Your task to perform on an android device: turn smart compose on in the gmail app Image 0: 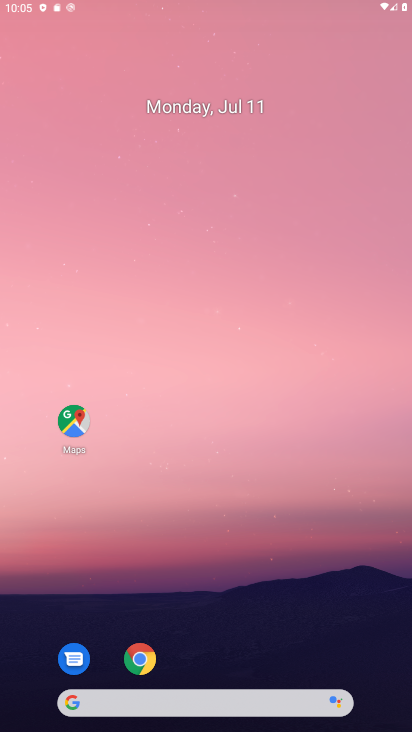
Step 0: drag from (206, 597) to (298, 203)
Your task to perform on an android device: turn smart compose on in the gmail app Image 1: 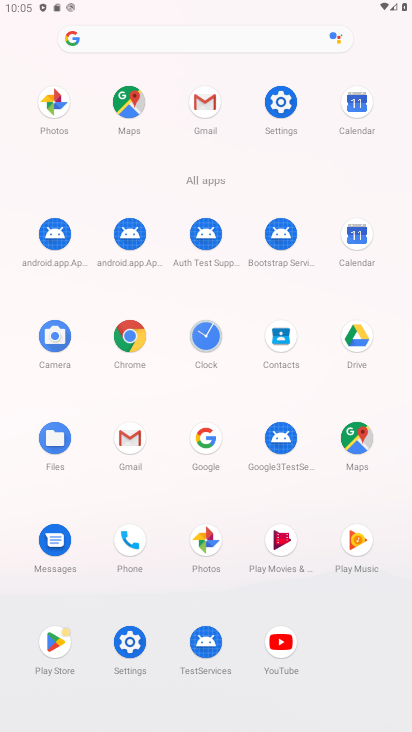
Step 1: click (127, 442)
Your task to perform on an android device: turn smart compose on in the gmail app Image 2: 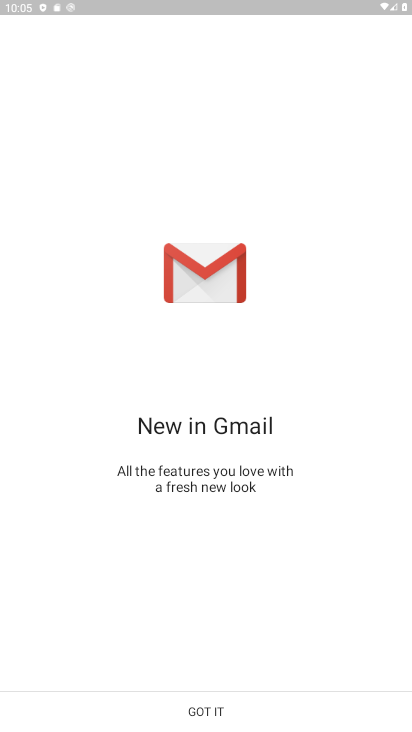
Step 2: click (222, 721)
Your task to perform on an android device: turn smart compose on in the gmail app Image 3: 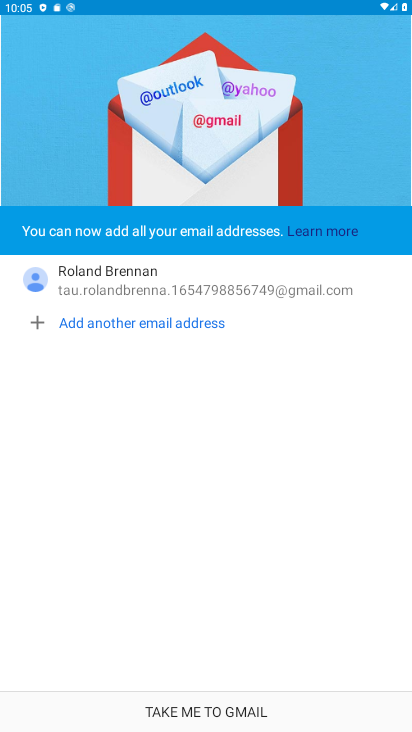
Step 3: click (222, 721)
Your task to perform on an android device: turn smart compose on in the gmail app Image 4: 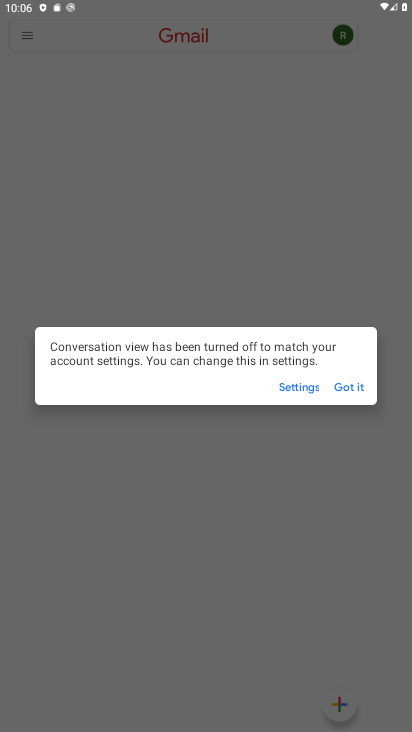
Step 4: click (345, 394)
Your task to perform on an android device: turn smart compose on in the gmail app Image 5: 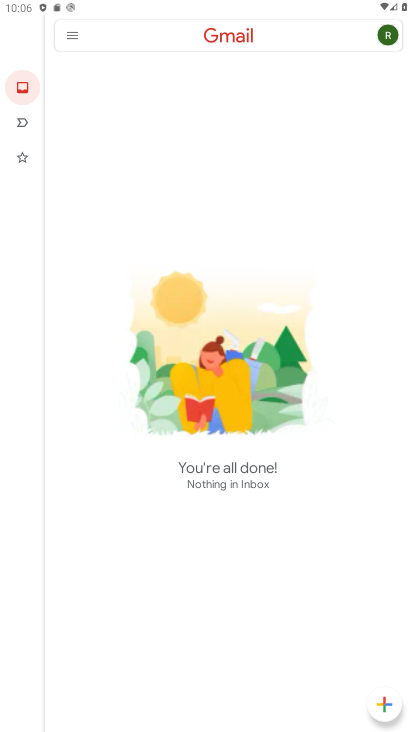
Step 5: click (28, 33)
Your task to perform on an android device: turn smart compose on in the gmail app Image 6: 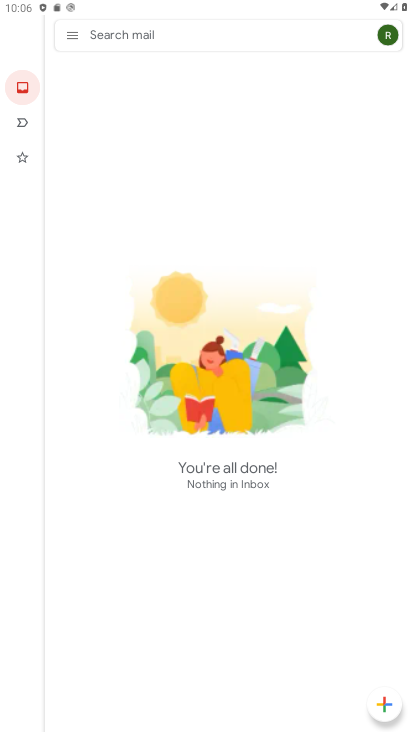
Step 6: click (70, 29)
Your task to perform on an android device: turn smart compose on in the gmail app Image 7: 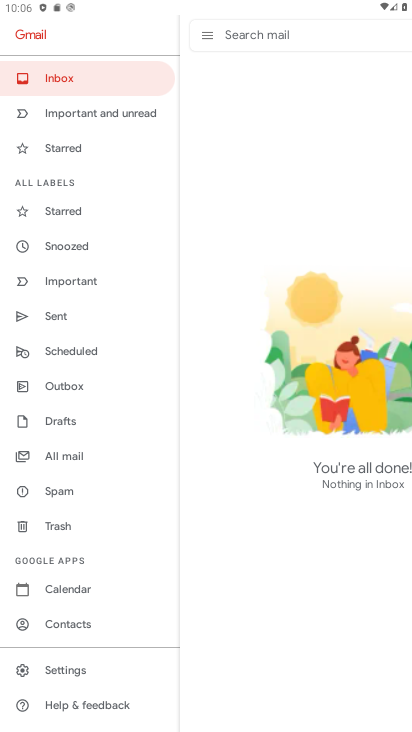
Step 7: drag from (95, 591) to (154, 327)
Your task to perform on an android device: turn smart compose on in the gmail app Image 8: 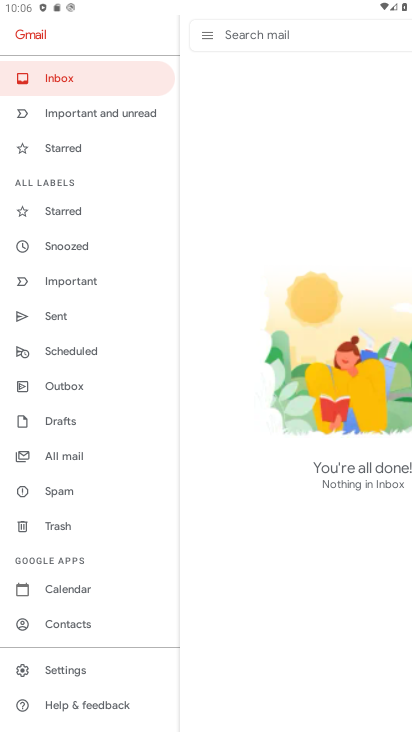
Step 8: click (94, 661)
Your task to perform on an android device: turn smart compose on in the gmail app Image 9: 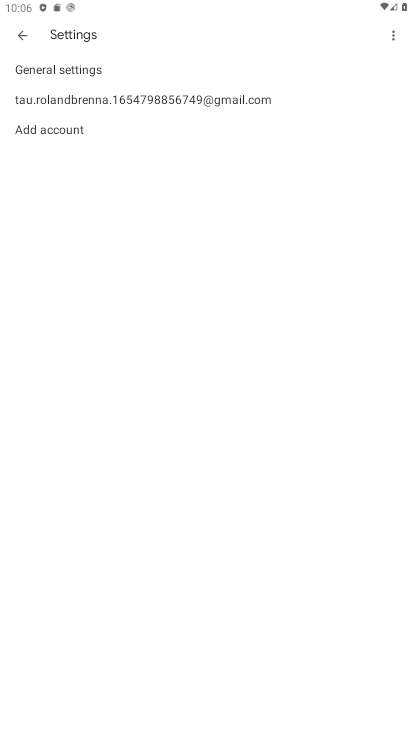
Step 9: click (248, 107)
Your task to perform on an android device: turn smart compose on in the gmail app Image 10: 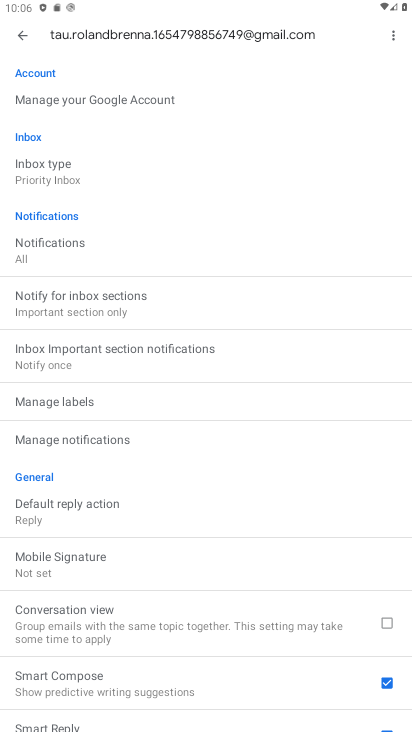
Step 10: task complete